Your task to perform on an android device: Open the phone app and click the voicemail tab. Image 0: 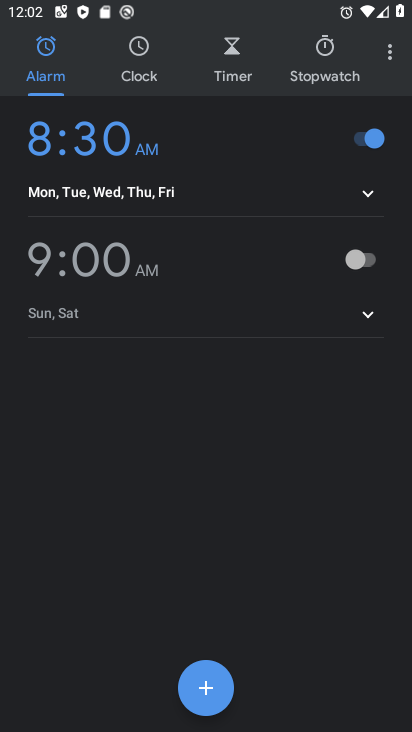
Step 0: press home button
Your task to perform on an android device: Open the phone app and click the voicemail tab. Image 1: 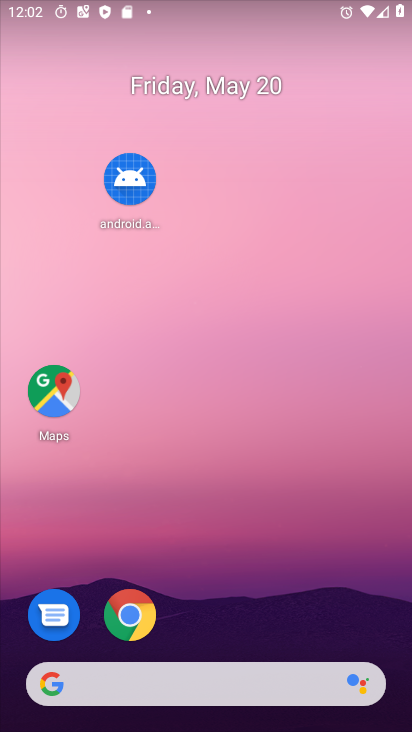
Step 1: drag from (297, 585) to (254, 94)
Your task to perform on an android device: Open the phone app and click the voicemail tab. Image 2: 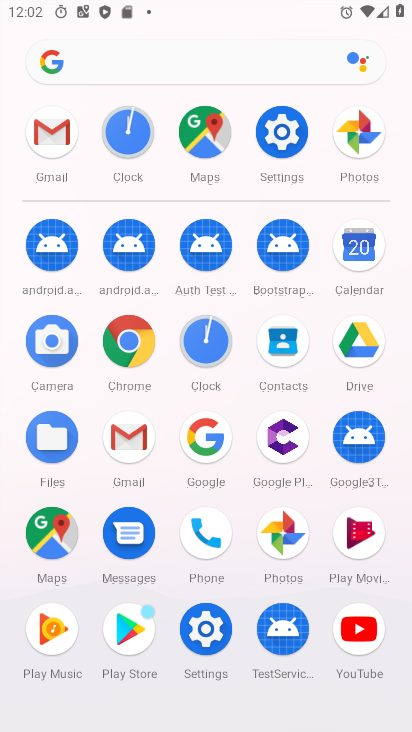
Step 2: click (213, 550)
Your task to perform on an android device: Open the phone app and click the voicemail tab. Image 3: 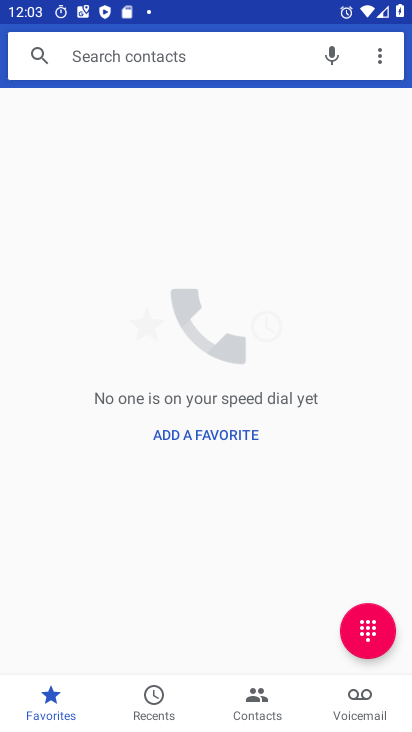
Step 3: click (354, 702)
Your task to perform on an android device: Open the phone app and click the voicemail tab. Image 4: 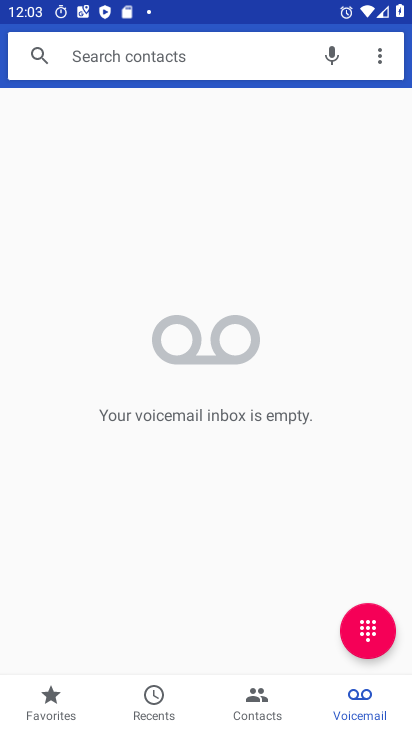
Step 4: task complete